Your task to perform on an android device: Open Chrome and go to settings Image 0: 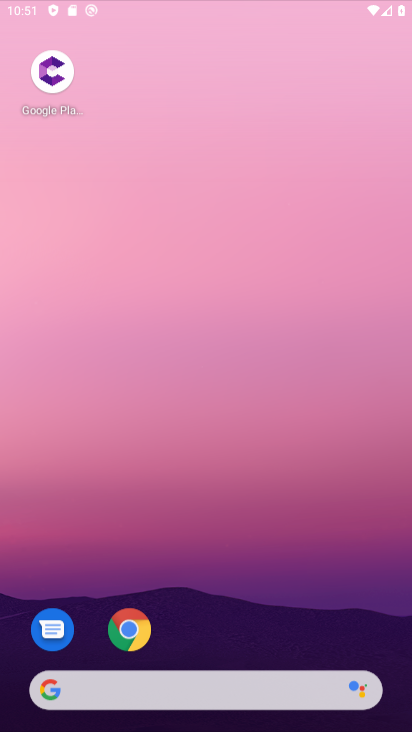
Step 0: drag from (287, 480) to (270, 67)
Your task to perform on an android device: Open Chrome and go to settings Image 1: 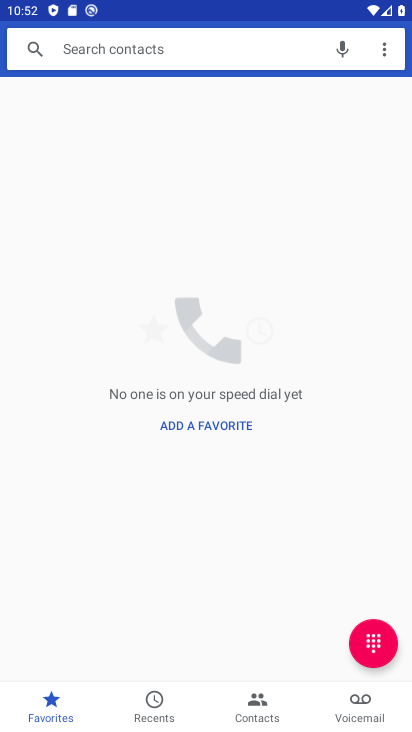
Step 1: press home button
Your task to perform on an android device: Open Chrome and go to settings Image 2: 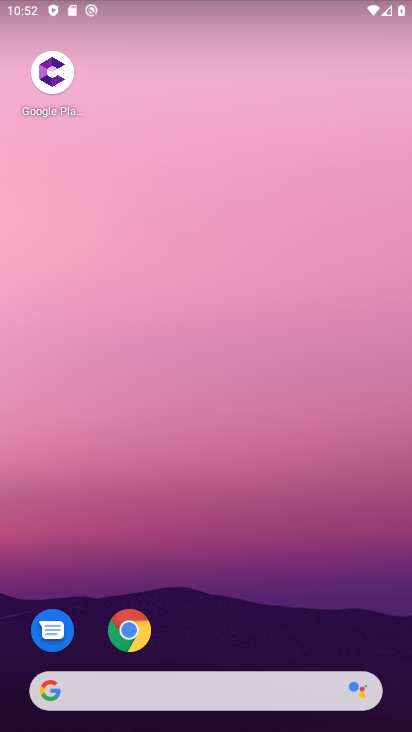
Step 2: click (127, 632)
Your task to perform on an android device: Open Chrome and go to settings Image 3: 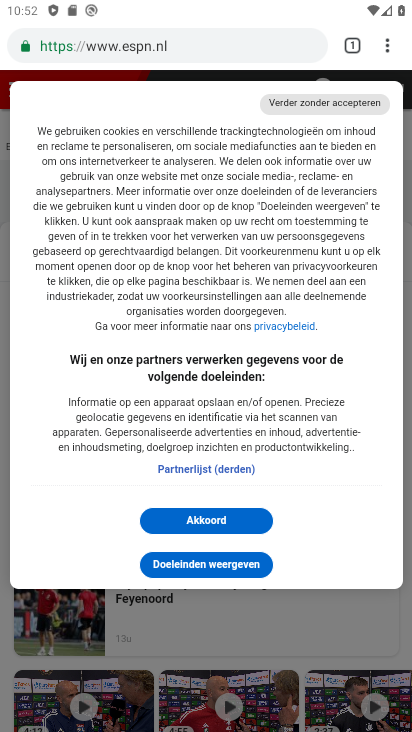
Step 3: click (381, 50)
Your task to perform on an android device: Open Chrome and go to settings Image 4: 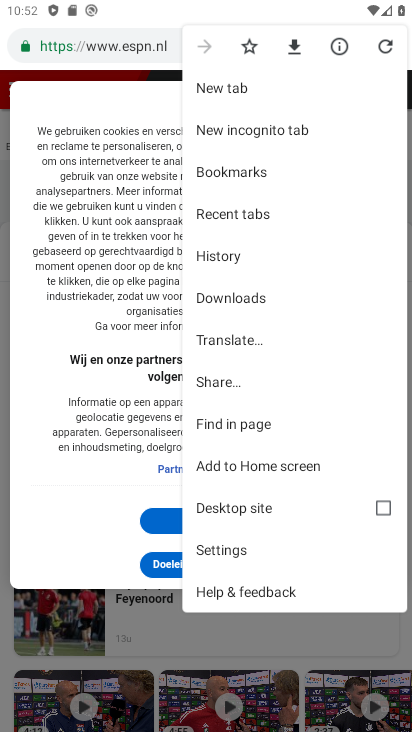
Step 4: click (237, 560)
Your task to perform on an android device: Open Chrome and go to settings Image 5: 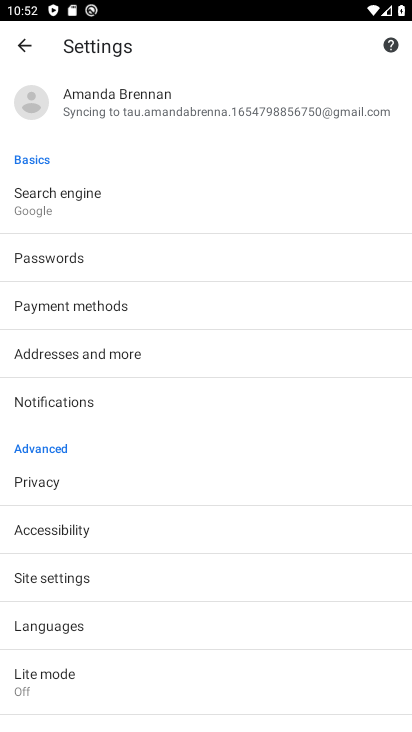
Step 5: task complete